Your task to perform on an android device: Open the stopwatch Image 0: 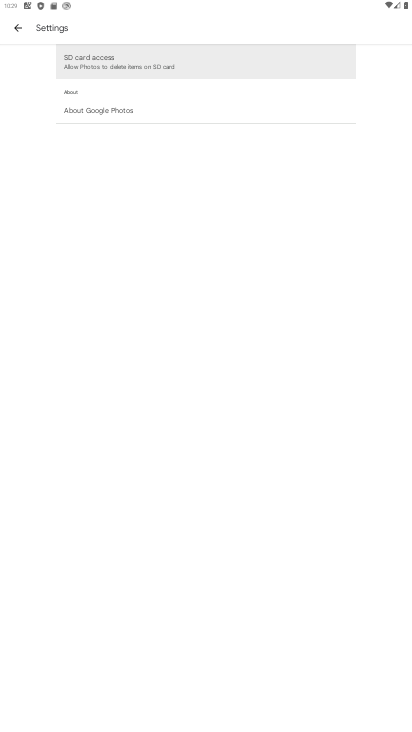
Step 0: press home button
Your task to perform on an android device: Open the stopwatch Image 1: 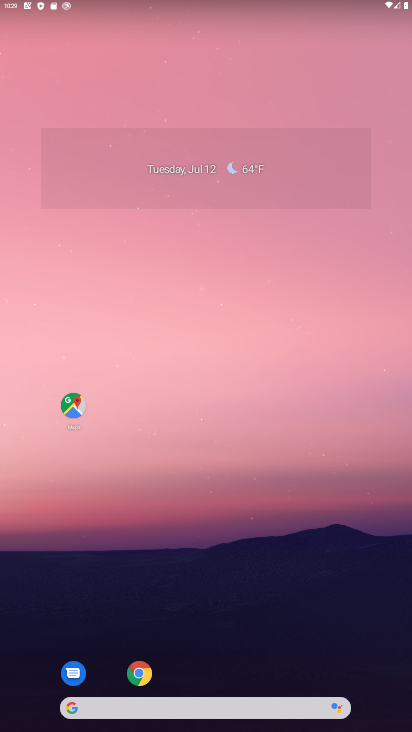
Step 1: drag from (275, 615) to (249, 110)
Your task to perform on an android device: Open the stopwatch Image 2: 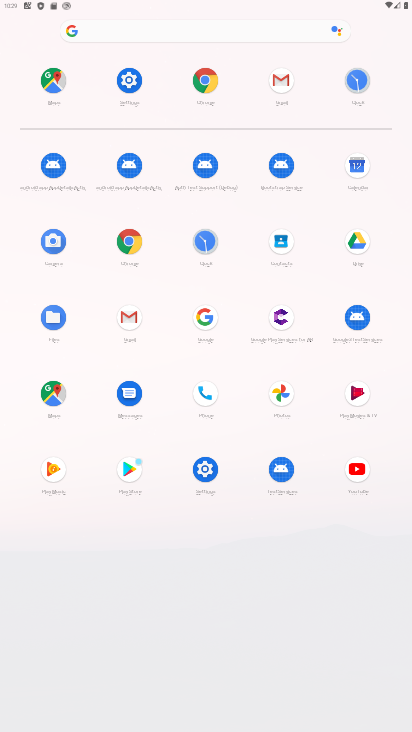
Step 2: click (203, 239)
Your task to perform on an android device: Open the stopwatch Image 3: 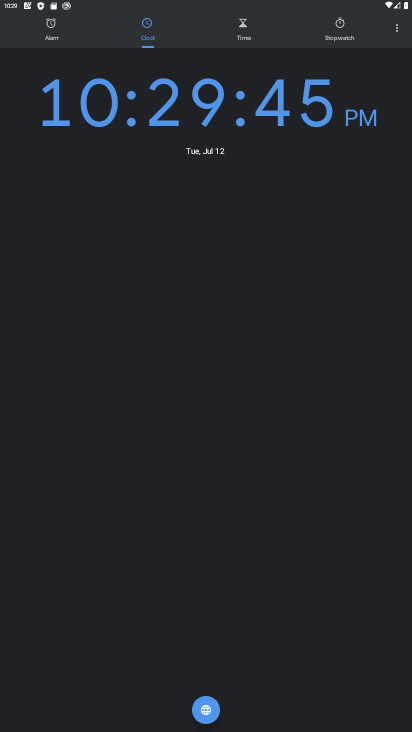
Step 3: click (331, 34)
Your task to perform on an android device: Open the stopwatch Image 4: 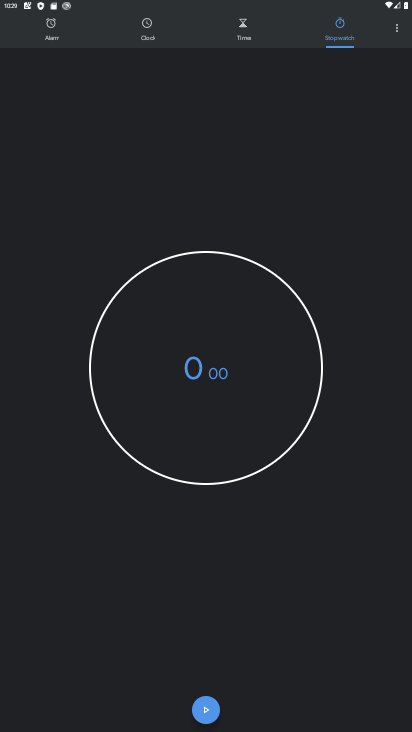
Step 4: task complete